Your task to perform on an android device: turn off location Image 0: 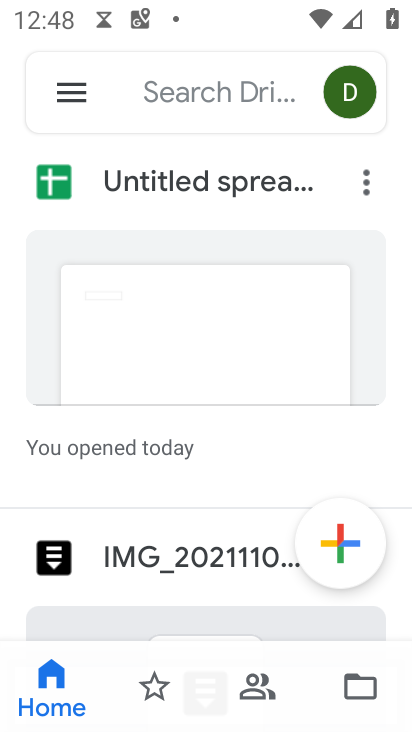
Step 0: press home button
Your task to perform on an android device: turn off location Image 1: 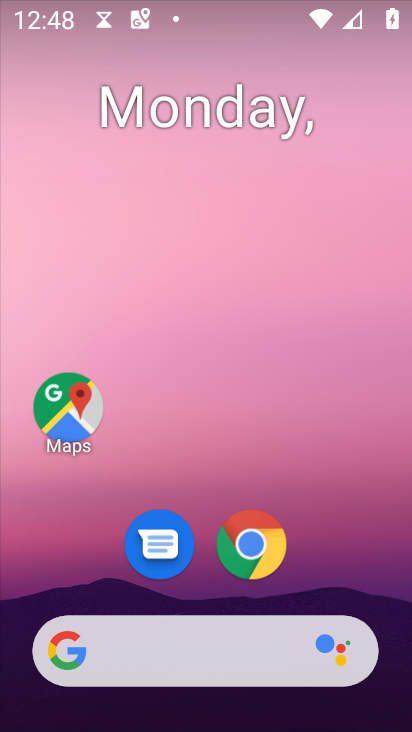
Step 1: drag from (316, 569) to (307, 280)
Your task to perform on an android device: turn off location Image 2: 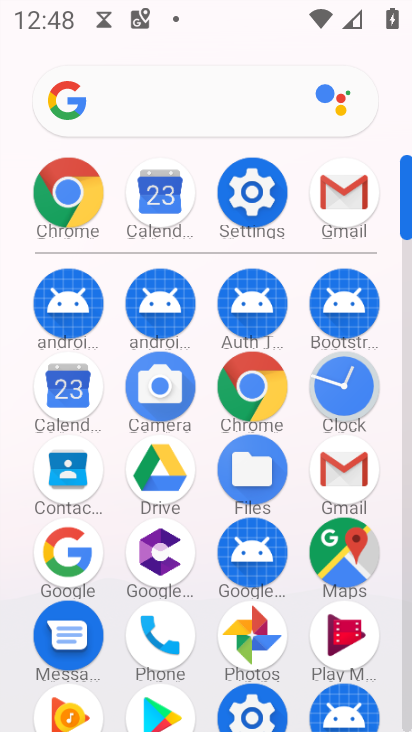
Step 2: click (244, 175)
Your task to perform on an android device: turn off location Image 3: 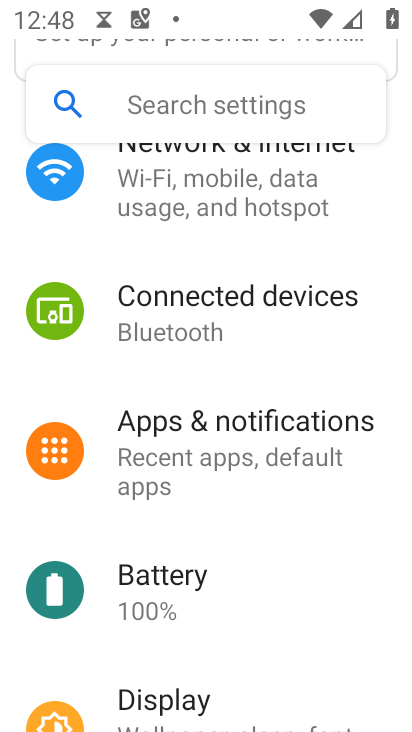
Step 3: drag from (246, 604) to (315, 185)
Your task to perform on an android device: turn off location Image 4: 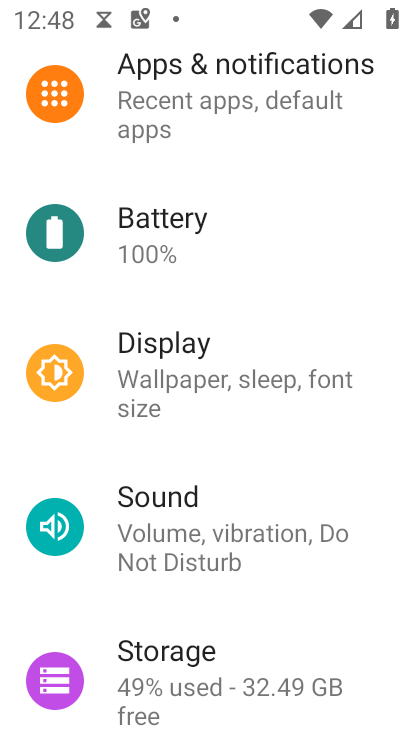
Step 4: drag from (253, 635) to (364, 117)
Your task to perform on an android device: turn off location Image 5: 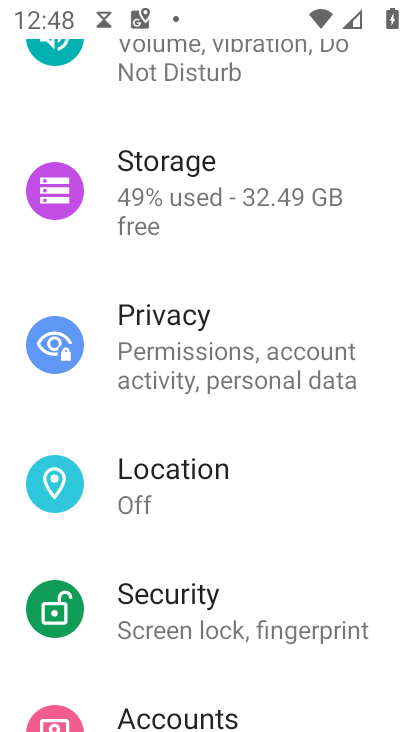
Step 5: click (212, 443)
Your task to perform on an android device: turn off location Image 6: 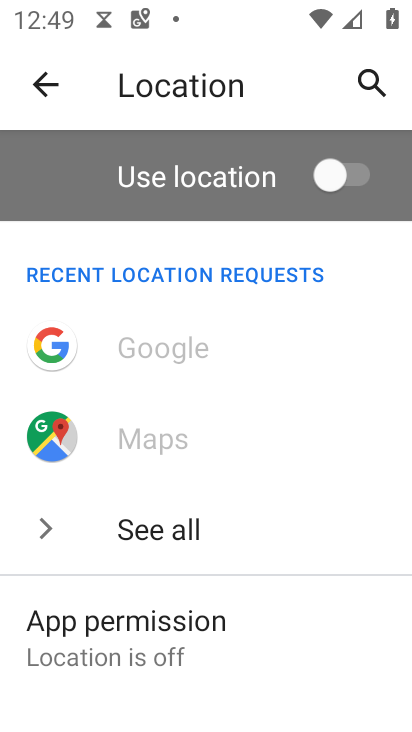
Step 6: task complete